Your task to perform on an android device: turn vacation reply on in the gmail app Image 0: 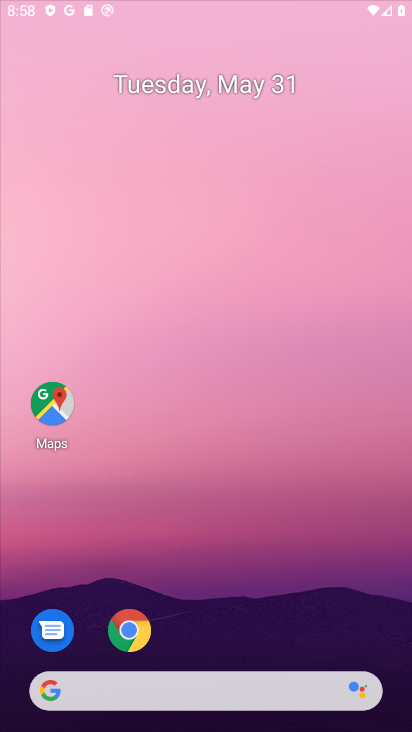
Step 0: drag from (79, 246) to (119, 144)
Your task to perform on an android device: turn vacation reply on in the gmail app Image 1: 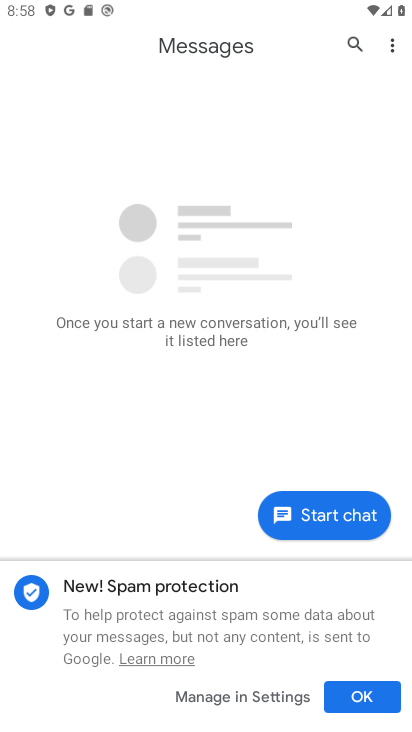
Step 1: press home button
Your task to perform on an android device: turn vacation reply on in the gmail app Image 2: 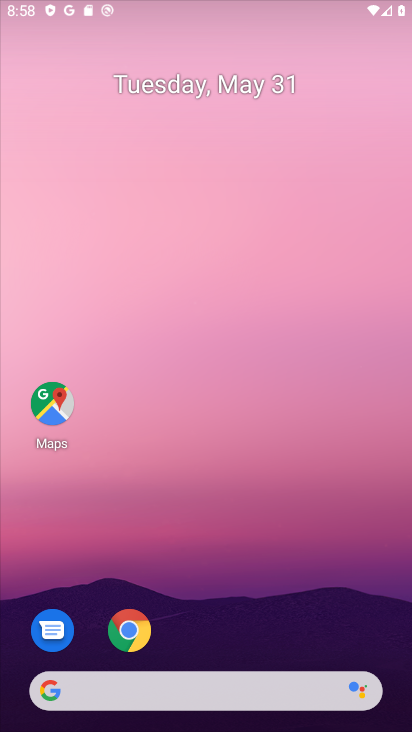
Step 2: drag from (147, 730) to (152, 144)
Your task to perform on an android device: turn vacation reply on in the gmail app Image 3: 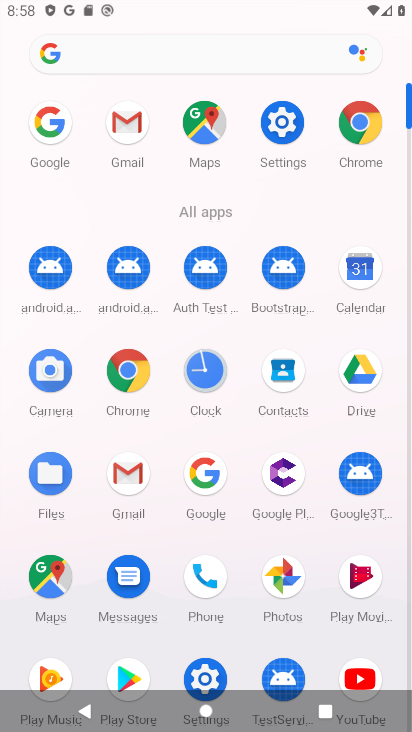
Step 3: click (130, 487)
Your task to perform on an android device: turn vacation reply on in the gmail app Image 4: 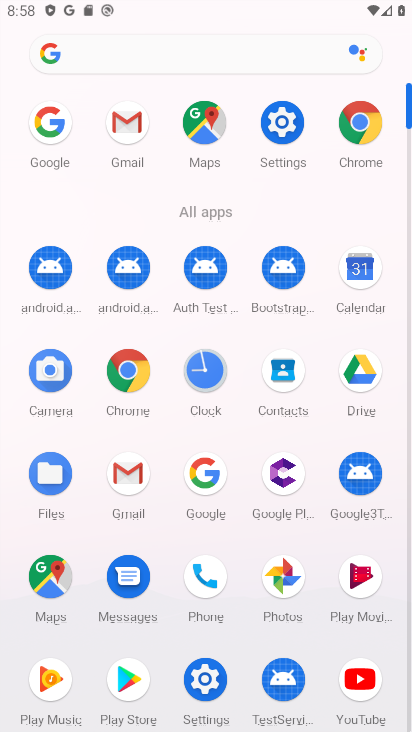
Step 4: click (129, 473)
Your task to perform on an android device: turn vacation reply on in the gmail app Image 5: 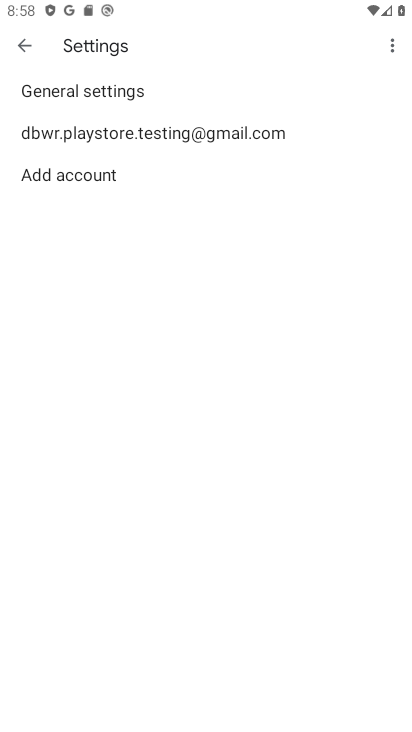
Step 5: click (43, 135)
Your task to perform on an android device: turn vacation reply on in the gmail app Image 6: 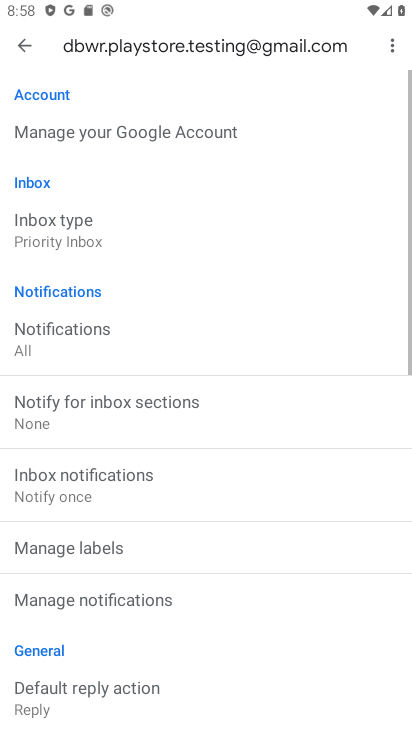
Step 6: drag from (129, 648) to (119, 276)
Your task to perform on an android device: turn vacation reply on in the gmail app Image 7: 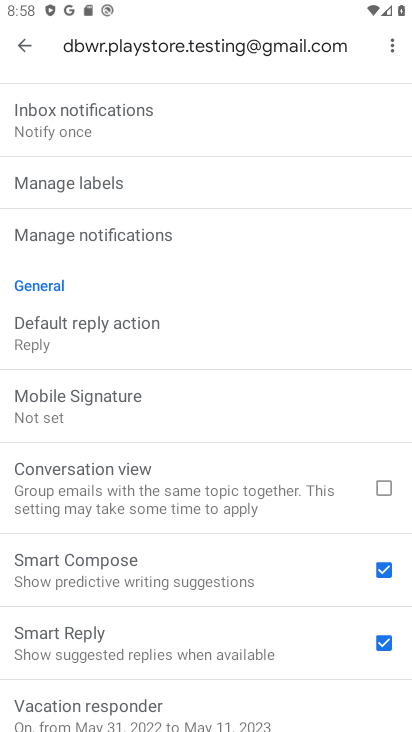
Step 7: drag from (101, 662) to (143, 353)
Your task to perform on an android device: turn vacation reply on in the gmail app Image 8: 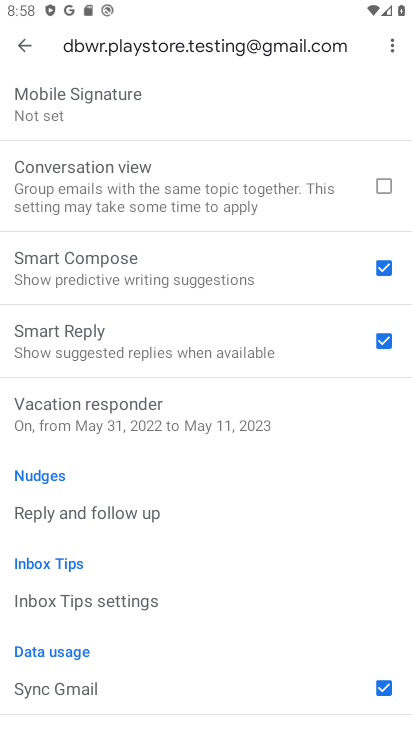
Step 8: click (134, 420)
Your task to perform on an android device: turn vacation reply on in the gmail app Image 9: 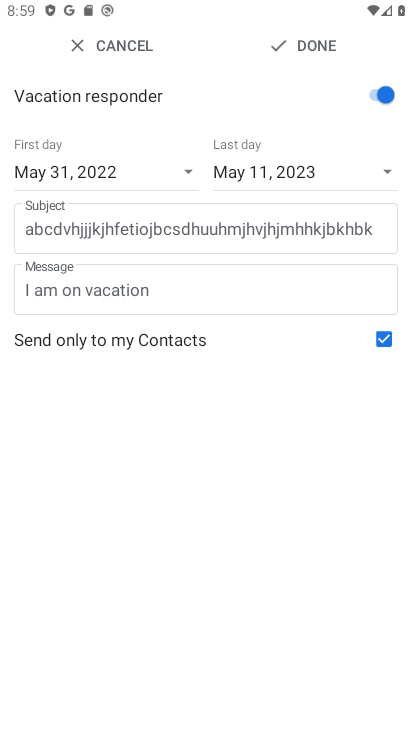
Step 9: task complete